Your task to perform on an android device: Open calendar and show me the second week of next month Image 0: 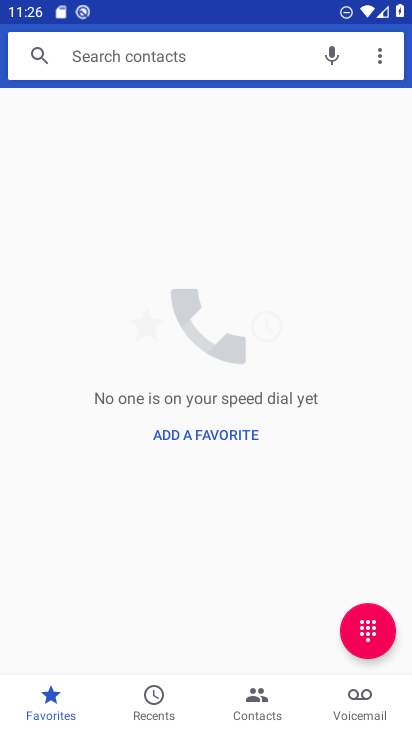
Step 0: press back button
Your task to perform on an android device: Open calendar and show me the second week of next month Image 1: 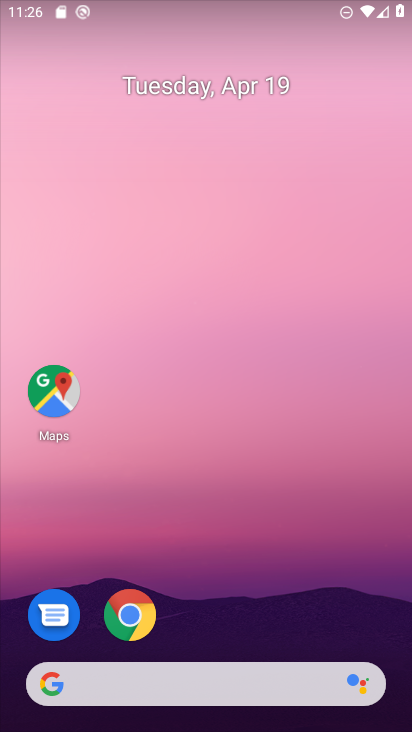
Step 1: drag from (192, 605) to (201, 259)
Your task to perform on an android device: Open calendar and show me the second week of next month Image 2: 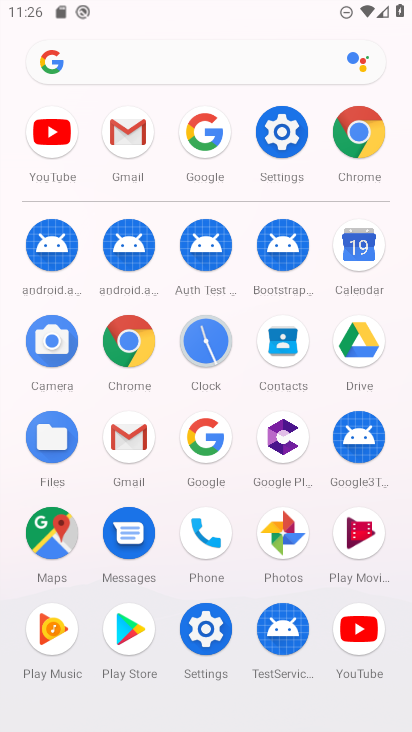
Step 2: click (353, 252)
Your task to perform on an android device: Open calendar and show me the second week of next month Image 3: 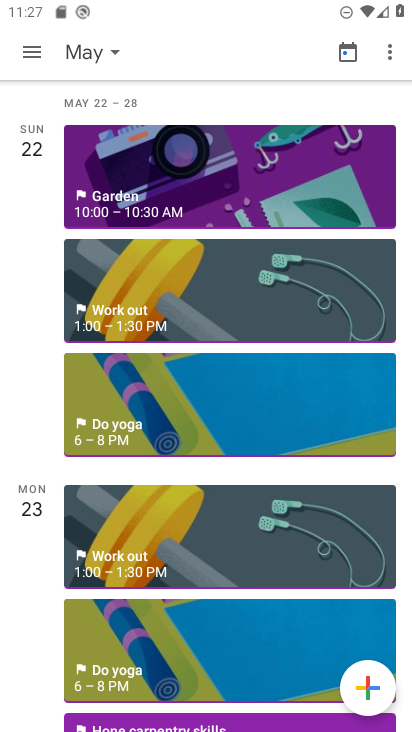
Step 3: click (79, 54)
Your task to perform on an android device: Open calendar and show me the second week of next month Image 4: 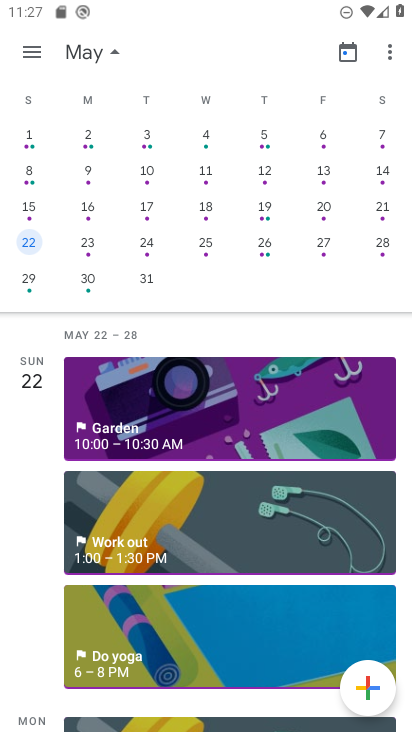
Step 4: click (25, 180)
Your task to perform on an android device: Open calendar and show me the second week of next month Image 5: 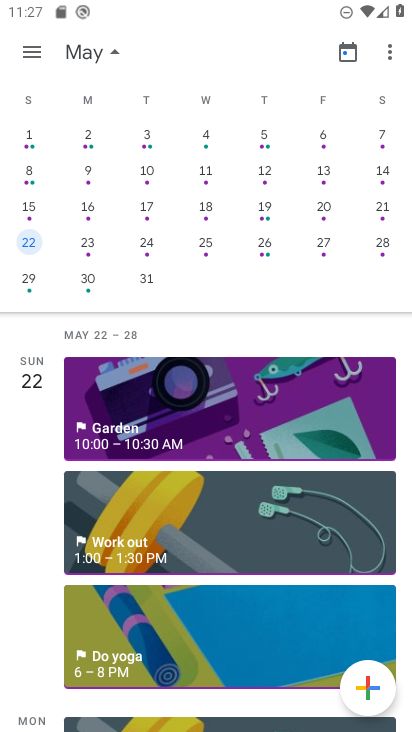
Step 5: click (29, 168)
Your task to perform on an android device: Open calendar and show me the second week of next month Image 6: 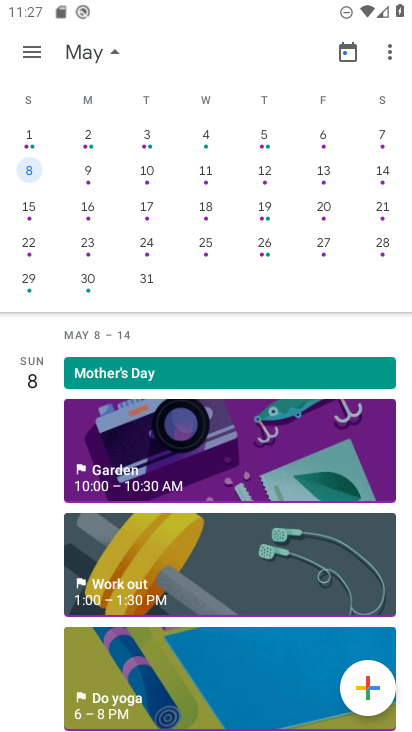
Step 6: task complete